Your task to perform on an android device: Open network settings Image 0: 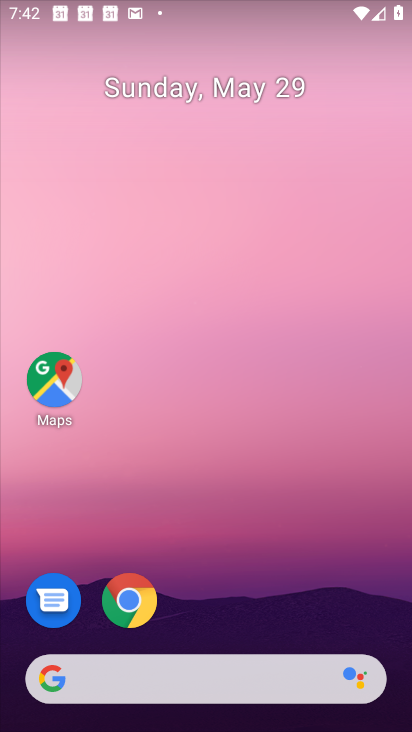
Step 0: drag from (325, 588) to (322, 186)
Your task to perform on an android device: Open network settings Image 1: 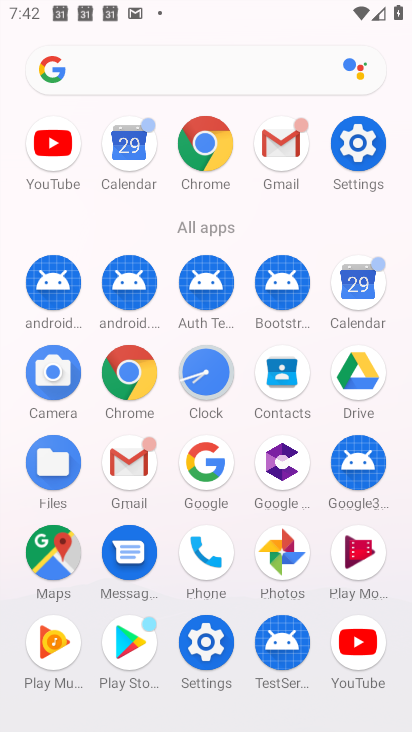
Step 1: click (376, 145)
Your task to perform on an android device: Open network settings Image 2: 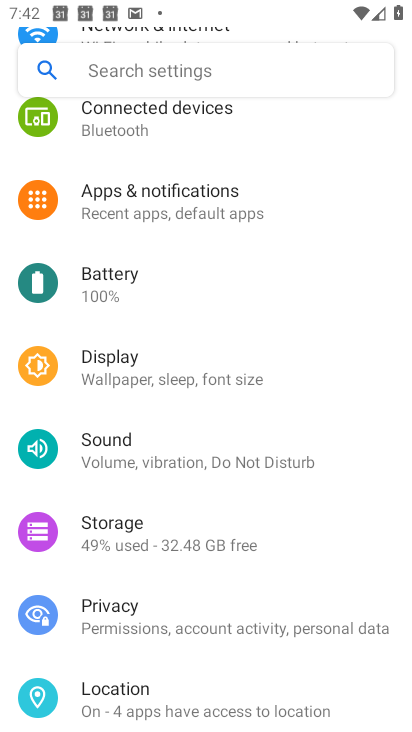
Step 2: task complete